Your task to perform on an android device: Open Google Maps Image 0: 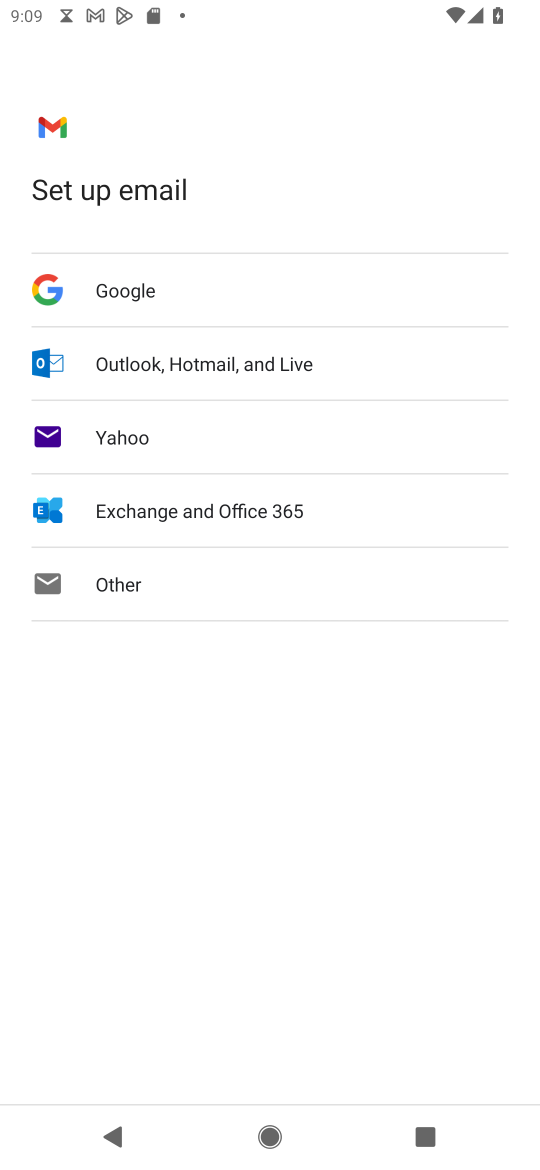
Step 0: press home button
Your task to perform on an android device: Open Google Maps Image 1: 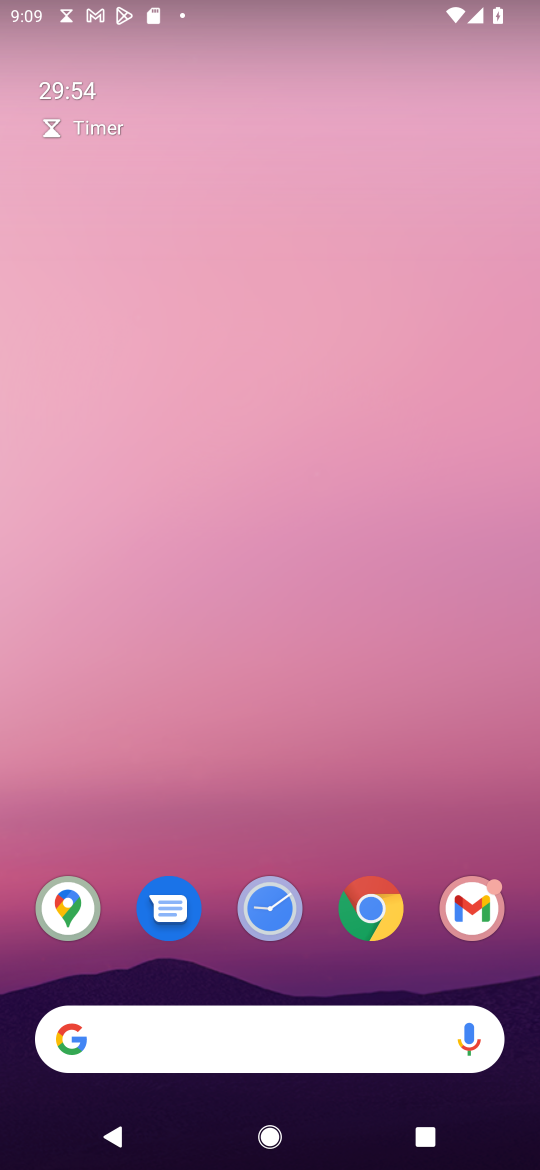
Step 1: click (66, 908)
Your task to perform on an android device: Open Google Maps Image 2: 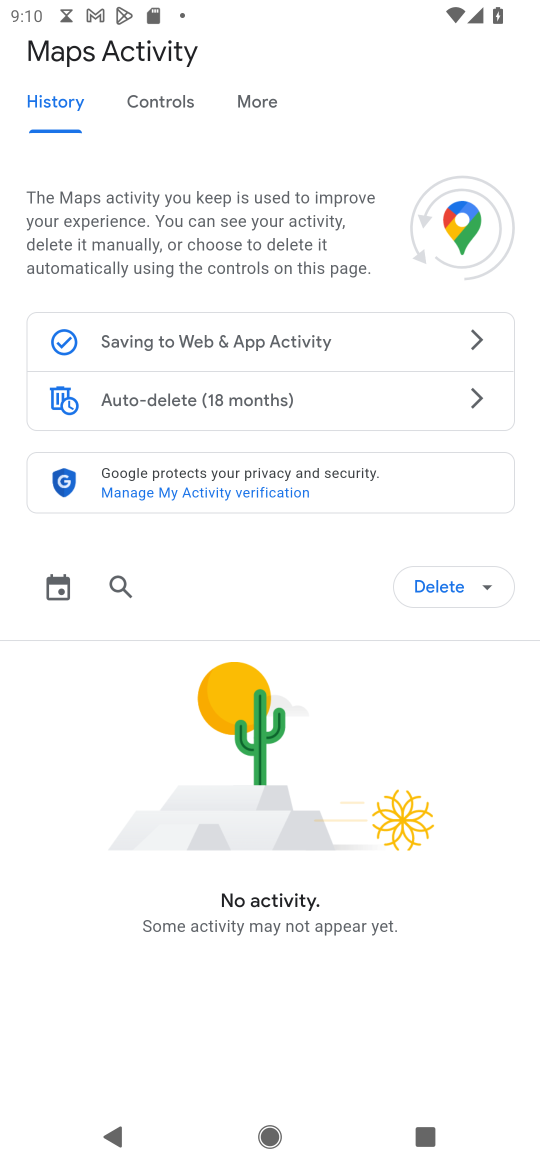
Step 2: task complete